Your task to perform on an android device: Open Chrome and go to the settings page Image 0: 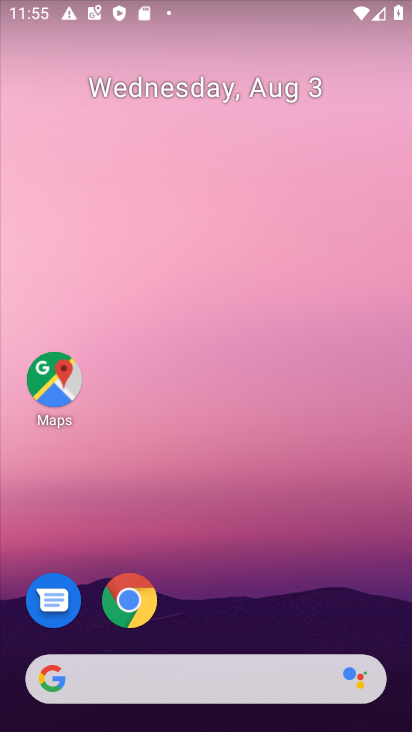
Step 0: click (131, 605)
Your task to perform on an android device: Open Chrome and go to the settings page Image 1: 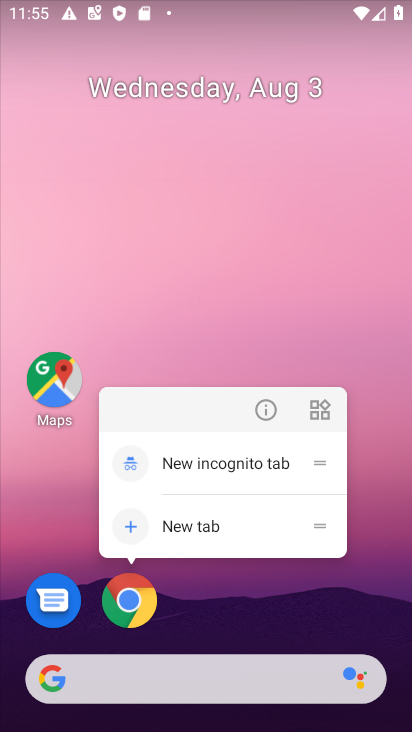
Step 1: click (131, 606)
Your task to perform on an android device: Open Chrome and go to the settings page Image 2: 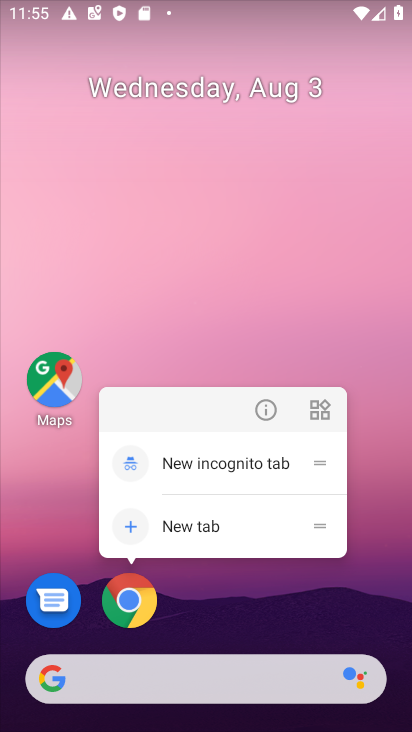
Step 2: click (131, 606)
Your task to perform on an android device: Open Chrome and go to the settings page Image 3: 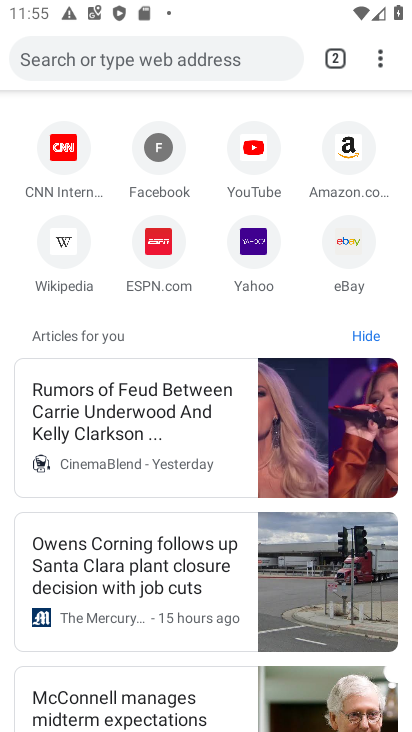
Step 3: task complete